Your task to perform on an android device: Is it going to rain tomorrow? Image 0: 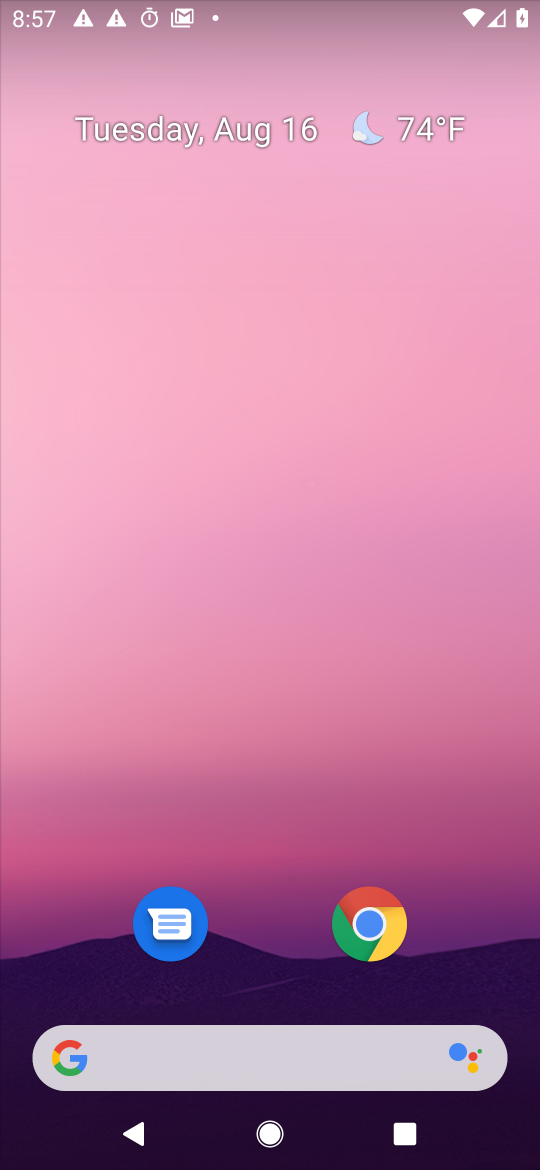
Step 0: click (193, 1086)
Your task to perform on an android device: Is it going to rain tomorrow? Image 1: 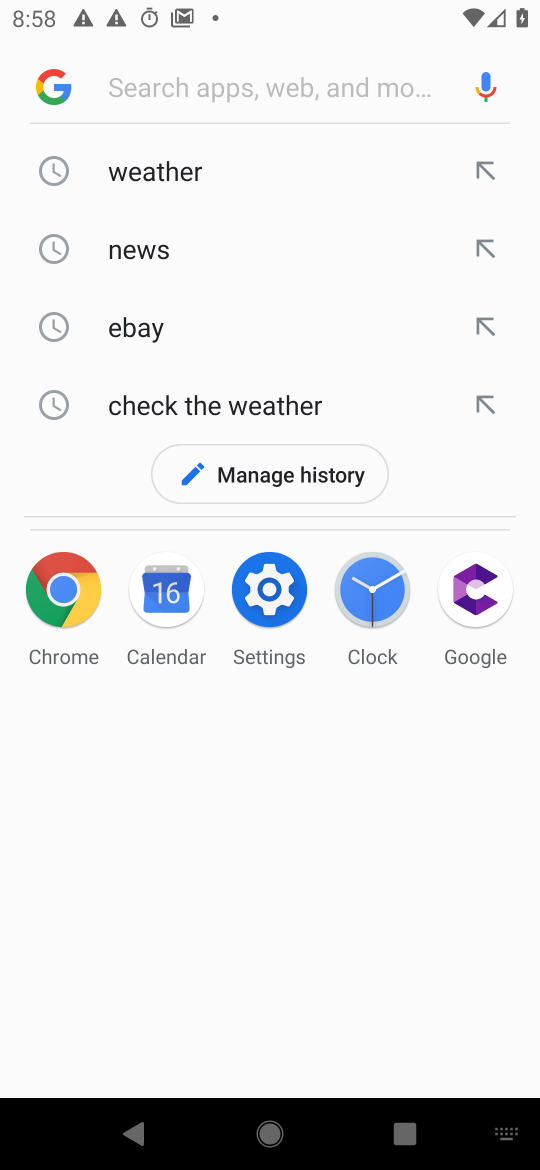
Step 1: click (185, 167)
Your task to perform on an android device: Is it going to rain tomorrow? Image 2: 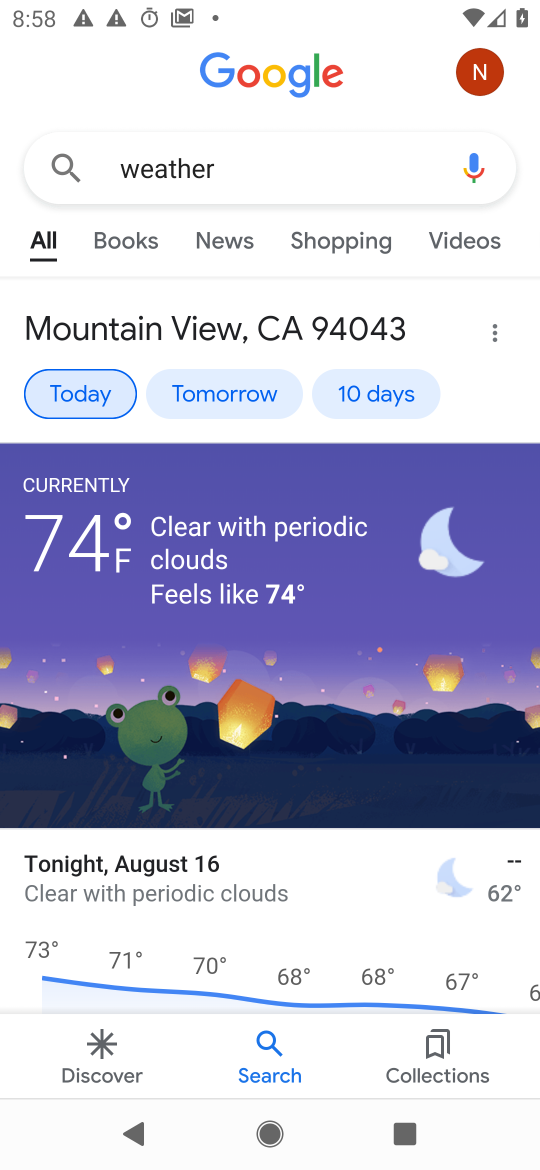
Step 2: click (205, 397)
Your task to perform on an android device: Is it going to rain tomorrow? Image 3: 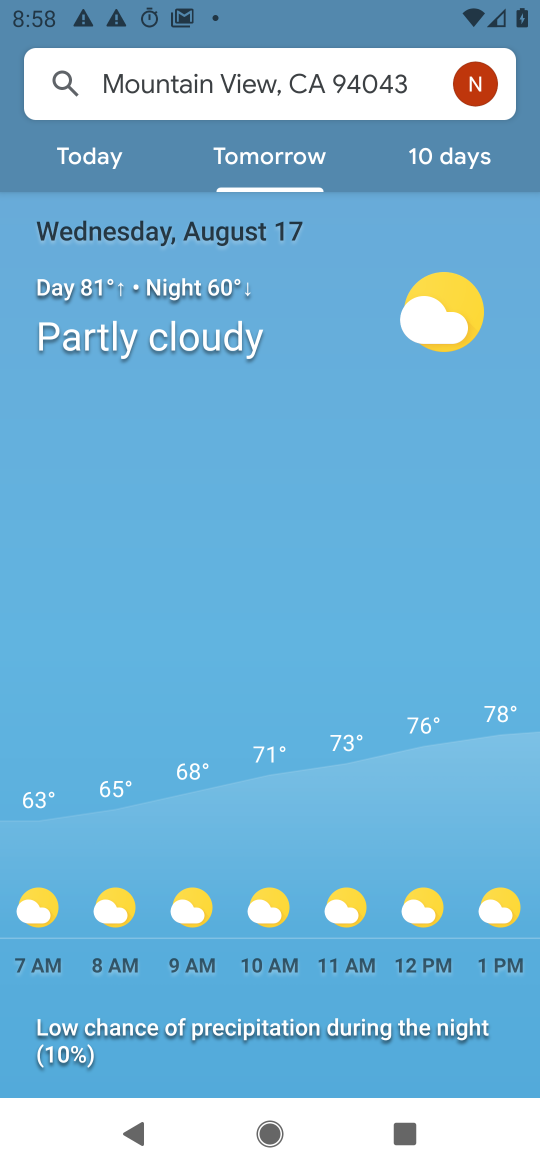
Step 3: task complete